Your task to perform on an android device: all mails in gmail Image 0: 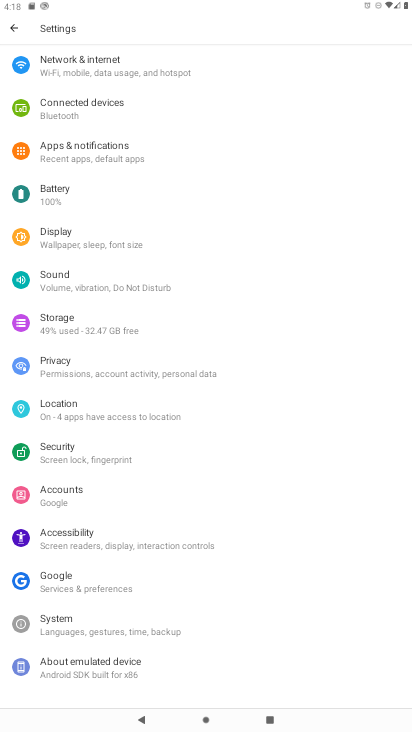
Step 0: press home button
Your task to perform on an android device: all mails in gmail Image 1: 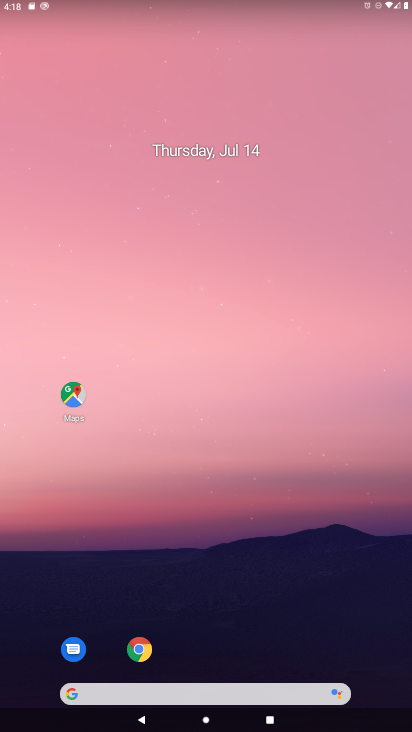
Step 1: drag from (201, 606) to (257, 230)
Your task to perform on an android device: all mails in gmail Image 2: 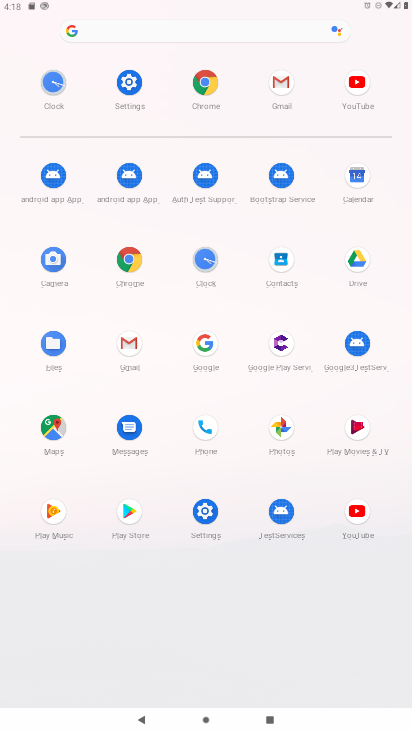
Step 2: click (125, 346)
Your task to perform on an android device: all mails in gmail Image 3: 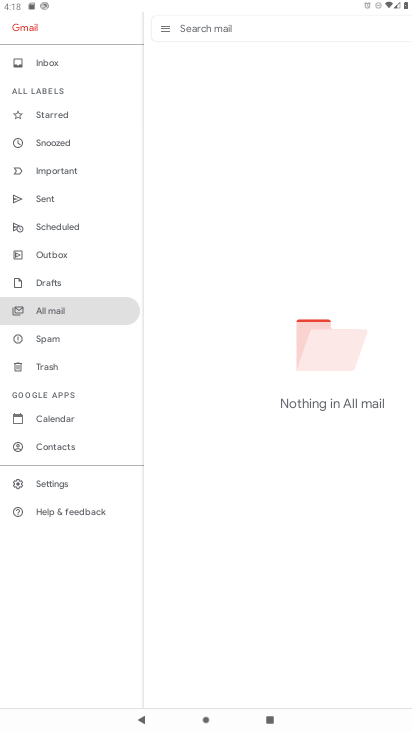
Step 3: click (76, 310)
Your task to perform on an android device: all mails in gmail Image 4: 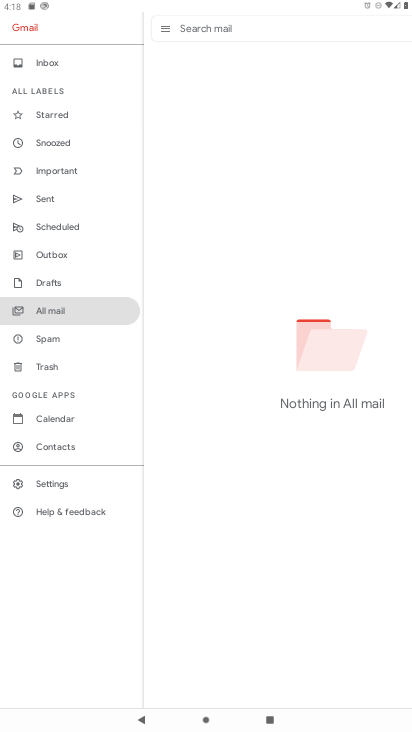
Step 4: task complete